Your task to perform on an android device: see creations saved in the google photos Image 0: 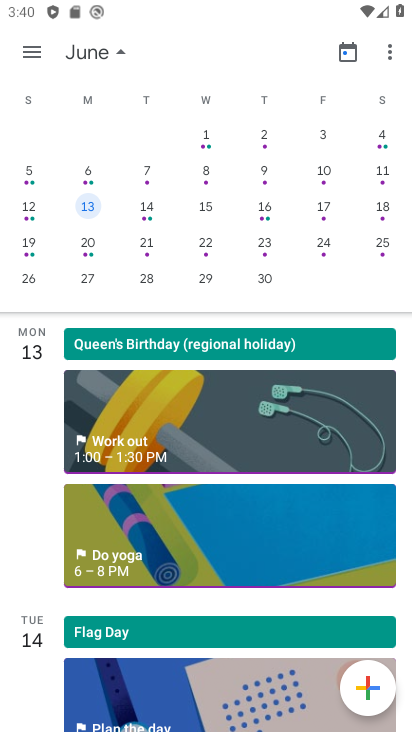
Step 0: press home button
Your task to perform on an android device: see creations saved in the google photos Image 1: 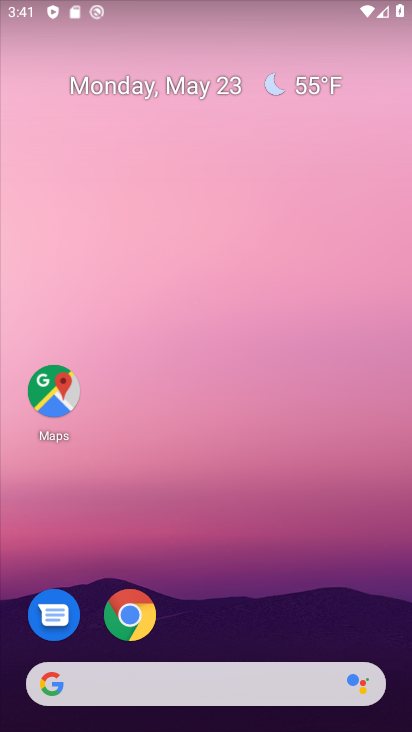
Step 1: drag from (335, 622) to (306, 57)
Your task to perform on an android device: see creations saved in the google photos Image 2: 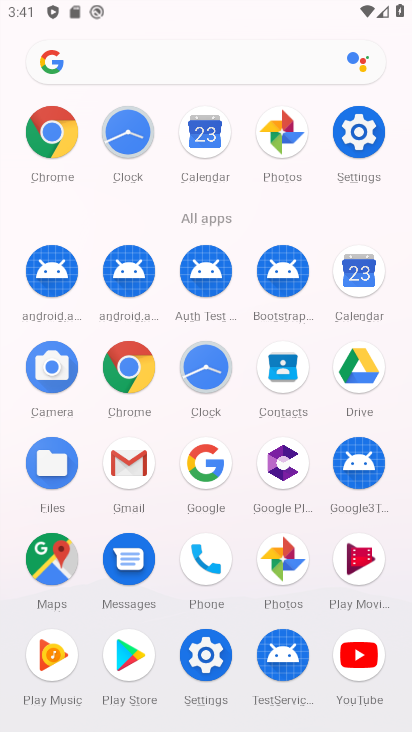
Step 2: click (290, 579)
Your task to perform on an android device: see creations saved in the google photos Image 3: 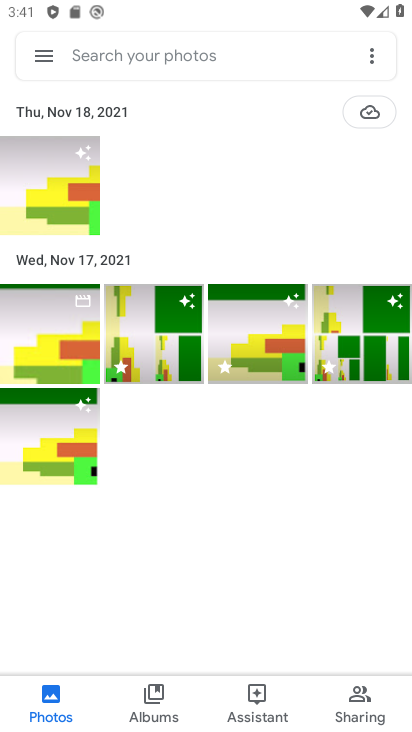
Step 3: click (183, 51)
Your task to perform on an android device: see creations saved in the google photos Image 4: 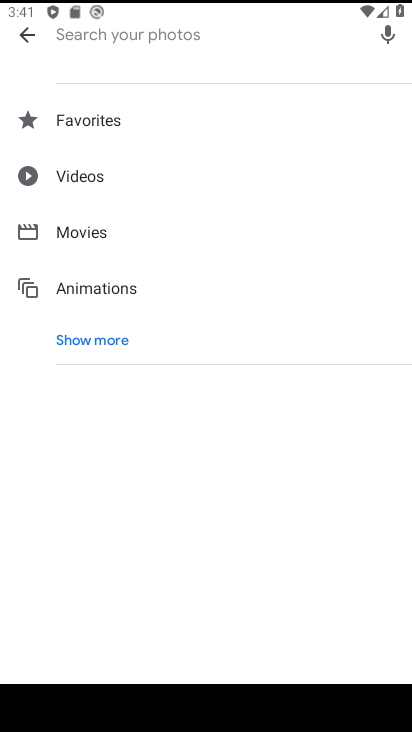
Step 4: click (118, 348)
Your task to perform on an android device: see creations saved in the google photos Image 5: 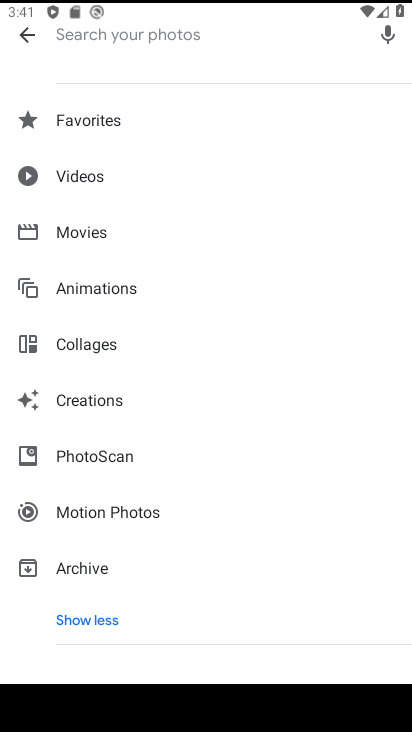
Step 5: drag from (234, 549) to (244, 323)
Your task to perform on an android device: see creations saved in the google photos Image 6: 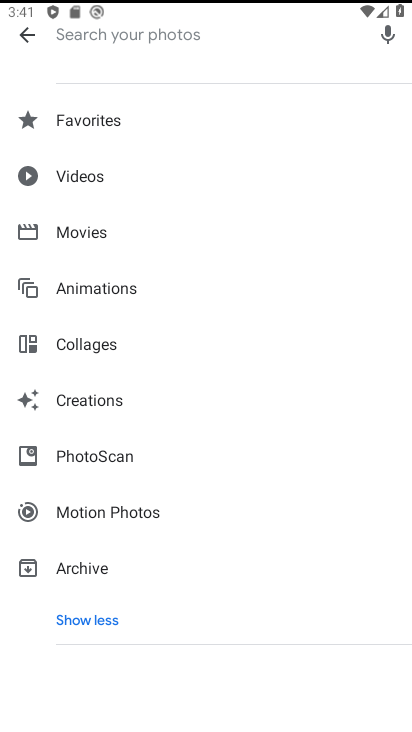
Step 6: click (114, 408)
Your task to perform on an android device: see creations saved in the google photos Image 7: 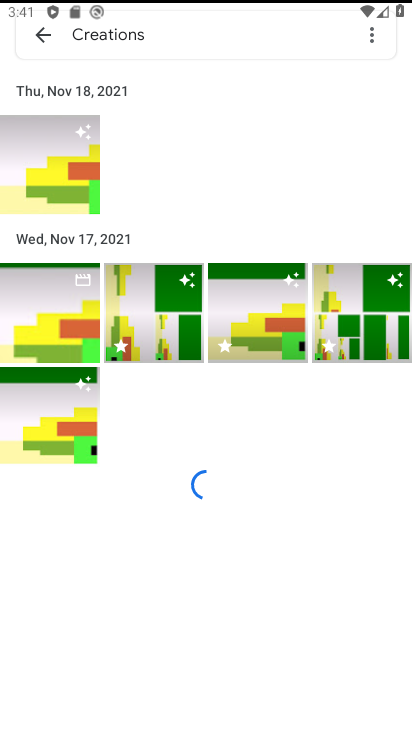
Step 7: task complete